Your task to perform on an android device: turn pop-ups on in chrome Image 0: 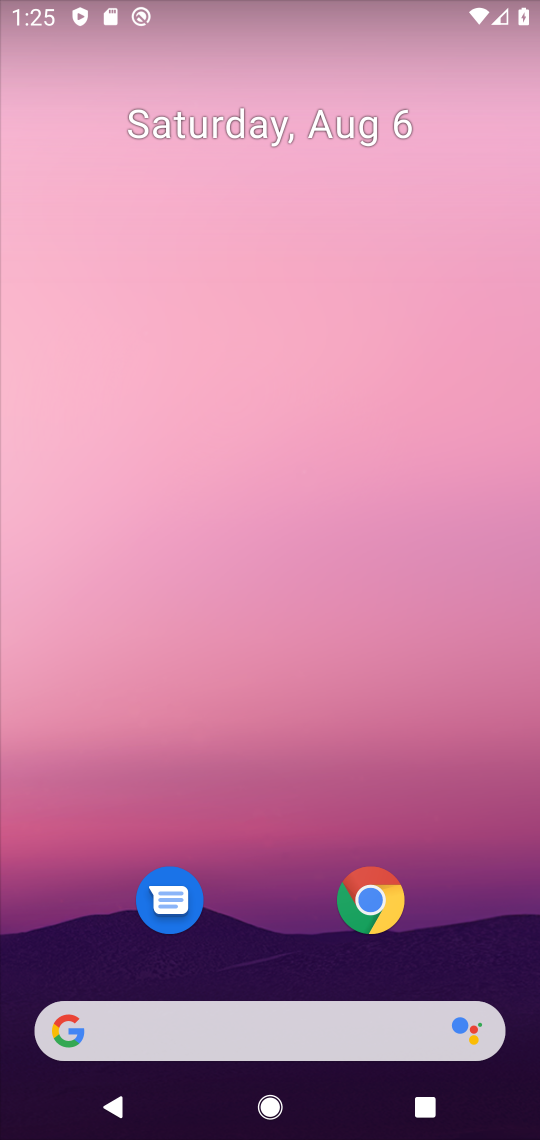
Step 0: press home button
Your task to perform on an android device: turn pop-ups on in chrome Image 1: 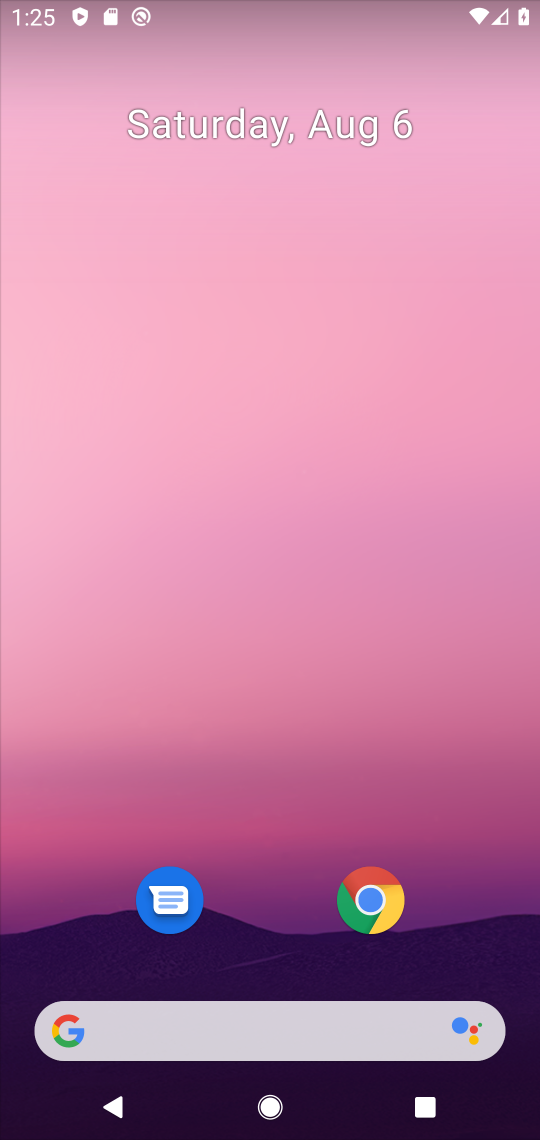
Step 1: click (386, 920)
Your task to perform on an android device: turn pop-ups on in chrome Image 2: 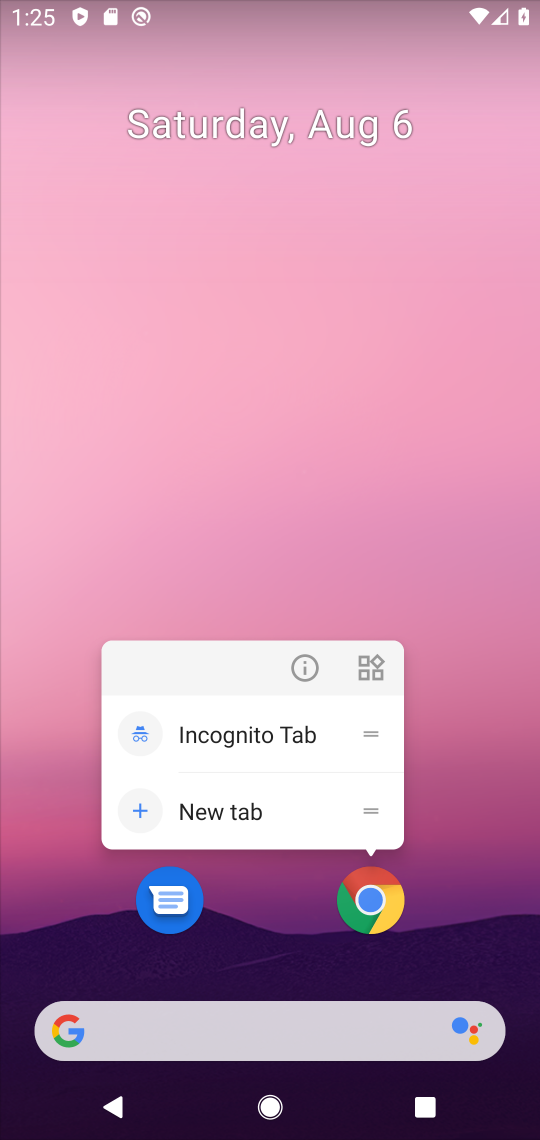
Step 2: click (369, 899)
Your task to perform on an android device: turn pop-ups on in chrome Image 3: 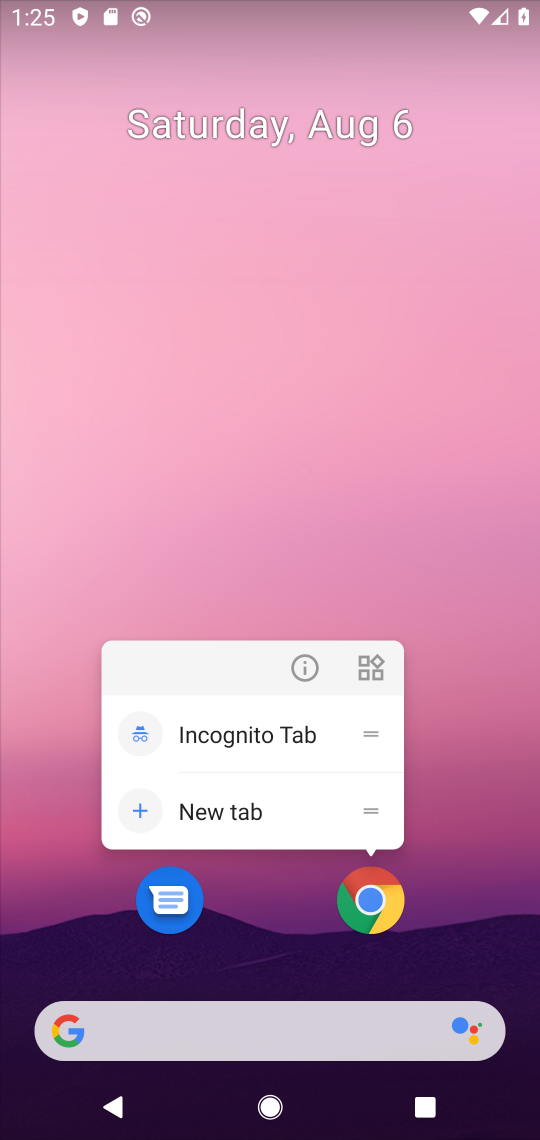
Step 3: click (369, 899)
Your task to perform on an android device: turn pop-ups on in chrome Image 4: 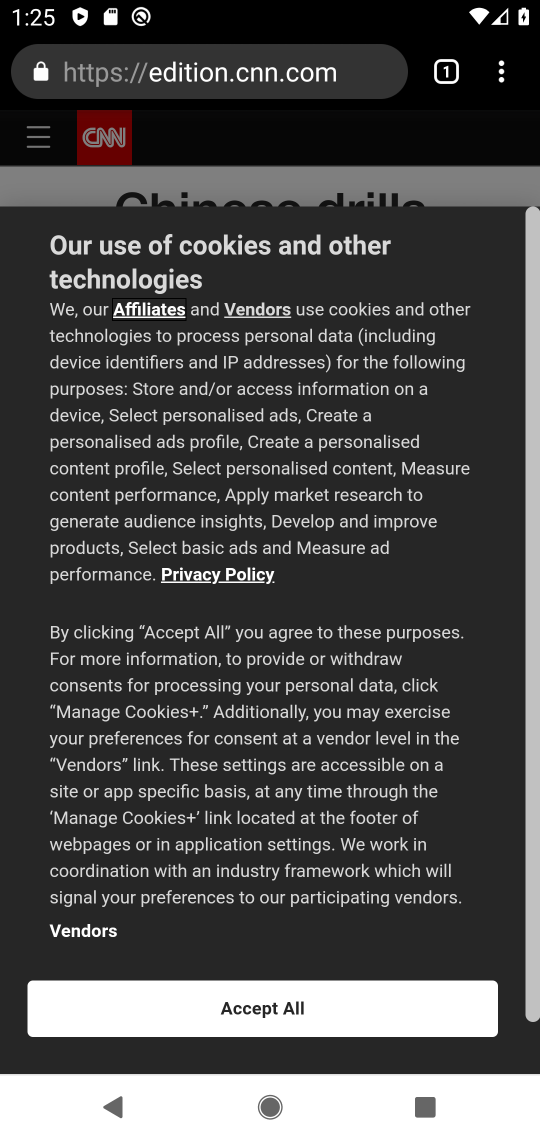
Step 4: click (277, 1014)
Your task to perform on an android device: turn pop-ups on in chrome Image 5: 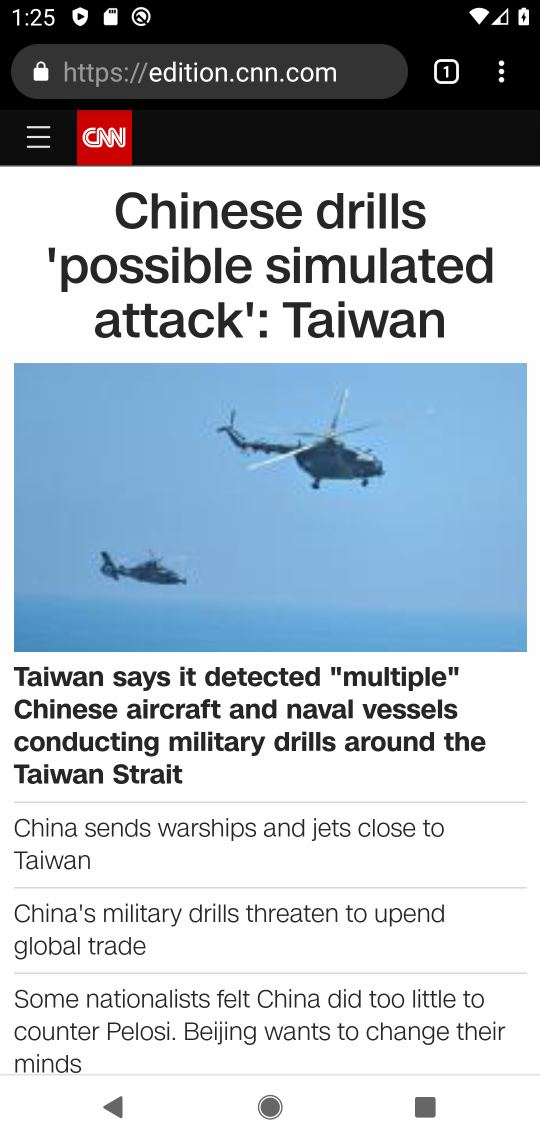
Step 5: click (503, 72)
Your task to perform on an android device: turn pop-ups on in chrome Image 6: 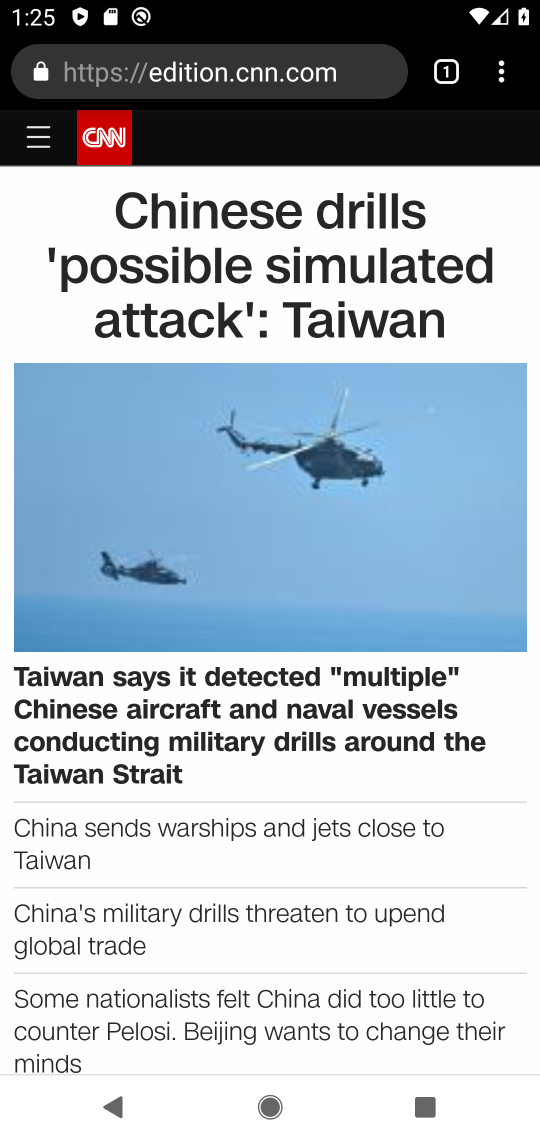
Step 6: drag from (503, 72) to (238, 858)
Your task to perform on an android device: turn pop-ups on in chrome Image 7: 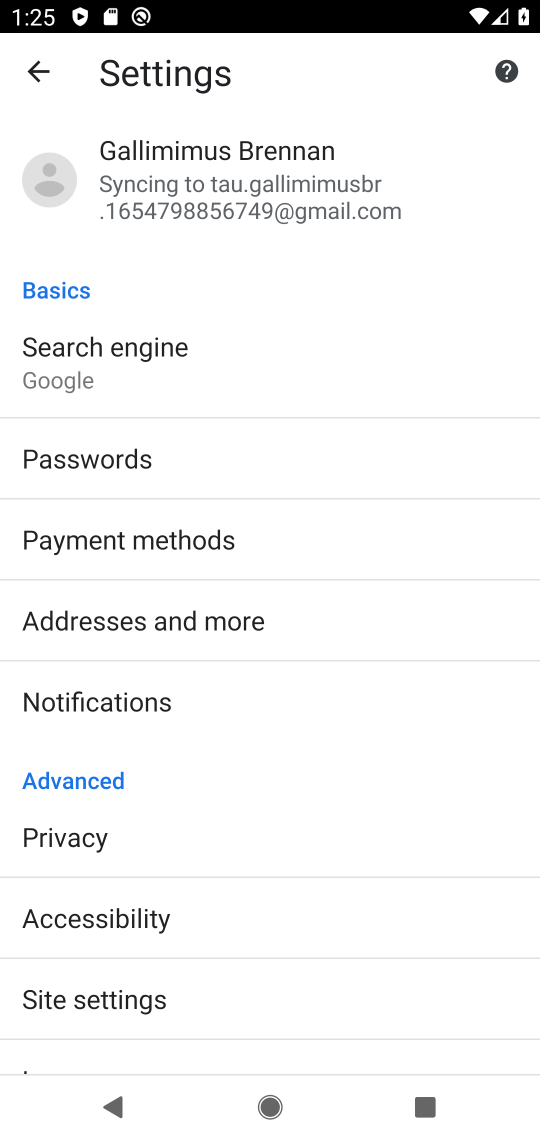
Step 7: click (64, 996)
Your task to perform on an android device: turn pop-ups on in chrome Image 8: 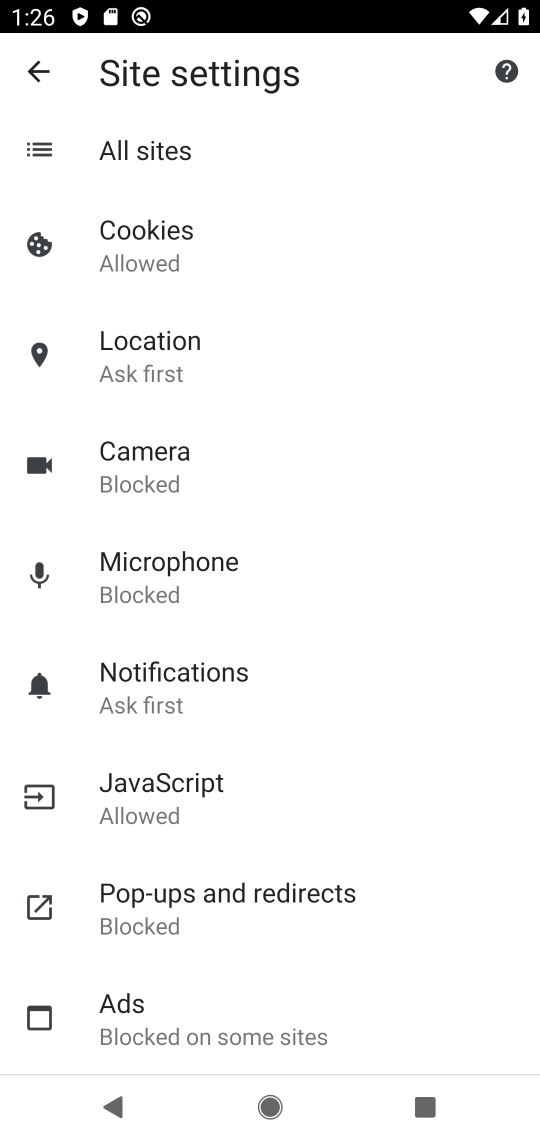
Step 8: click (260, 900)
Your task to perform on an android device: turn pop-ups on in chrome Image 9: 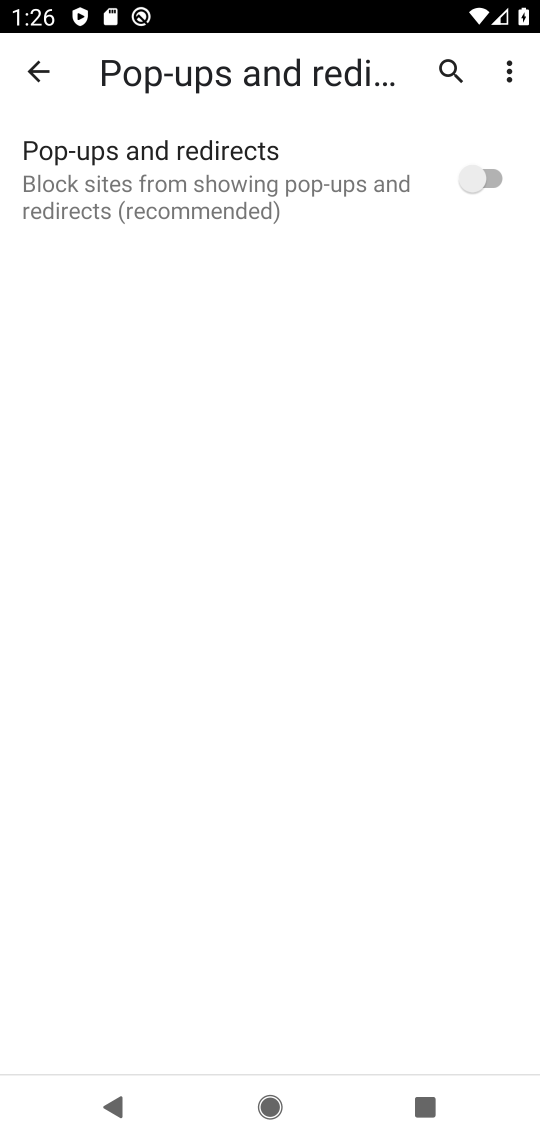
Step 9: click (463, 184)
Your task to perform on an android device: turn pop-ups on in chrome Image 10: 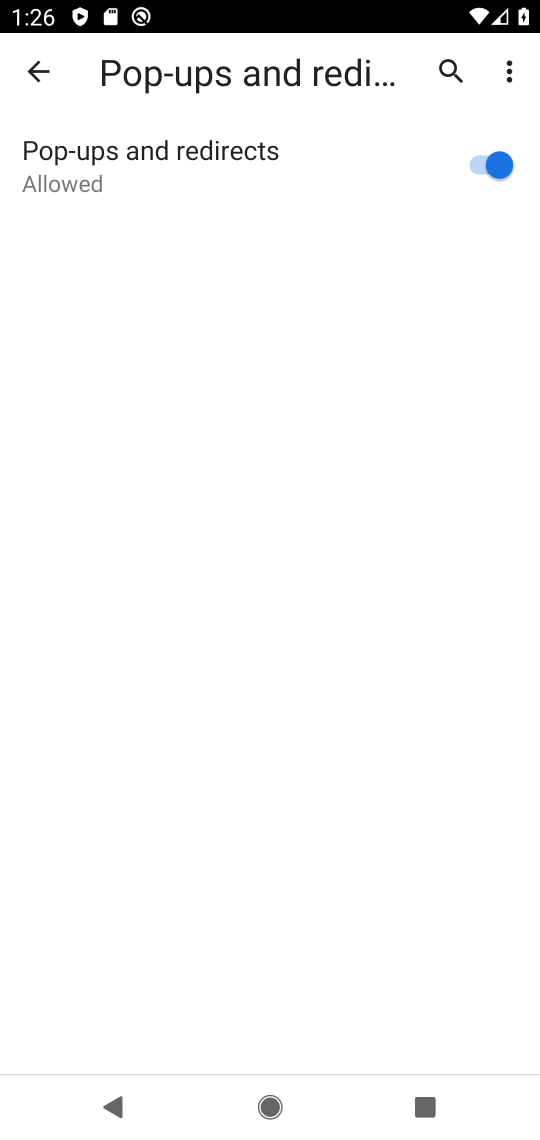
Step 10: task complete